Your task to perform on an android device: Is it going to rain today? Image 0: 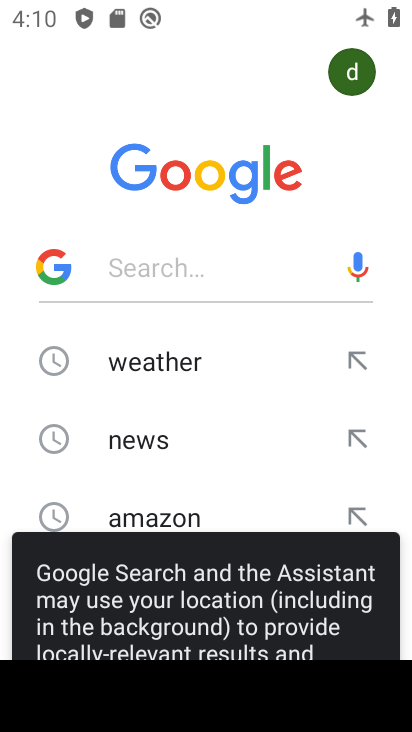
Step 0: drag from (275, 552) to (314, 128)
Your task to perform on an android device: Is it going to rain today? Image 1: 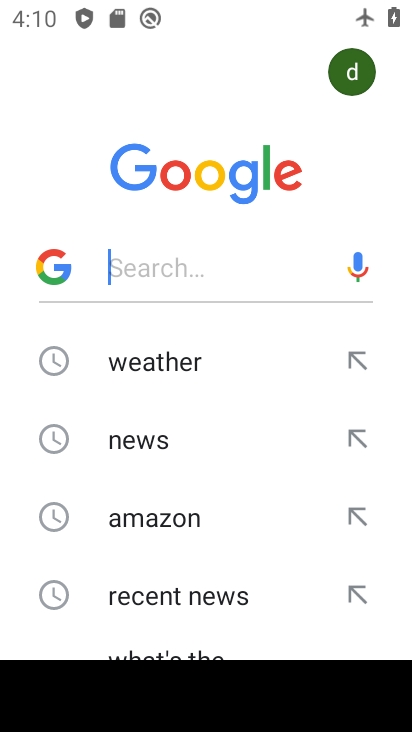
Step 1: press home button
Your task to perform on an android device: Is it going to rain today? Image 2: 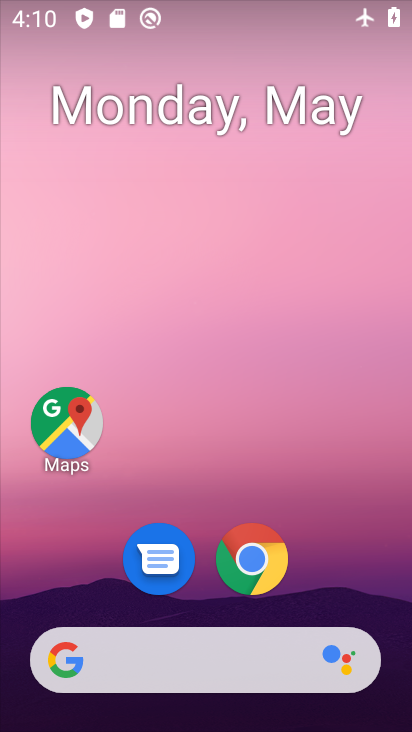
Step 2: drag from (261, 568) to (262, 0)
Your task to perform on an android device: Is it going to rain today? Image 3: 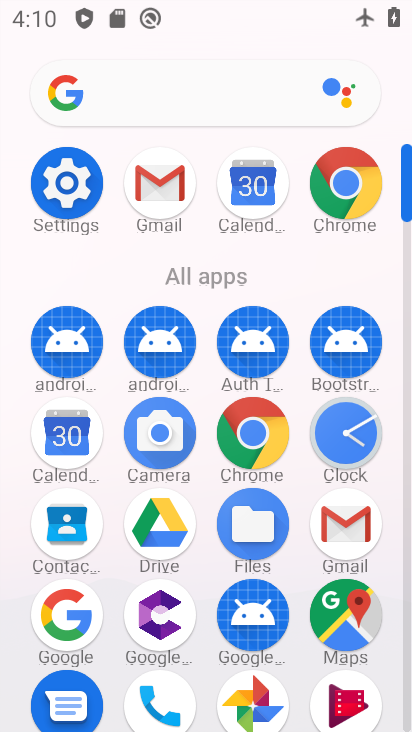
Step 3: press home button
Your task to perform on an android device: Is it going to rain today? Image 4: 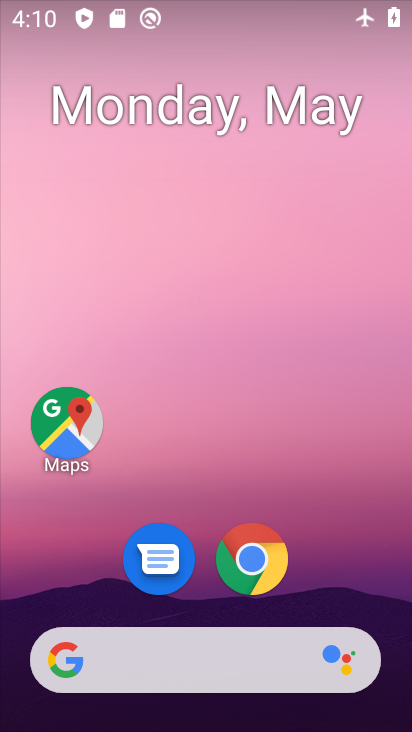
Step 4: drag from (17, 247) to (376, 232)
Your task to perform on an android device: Is it going to rain today? Image 5: 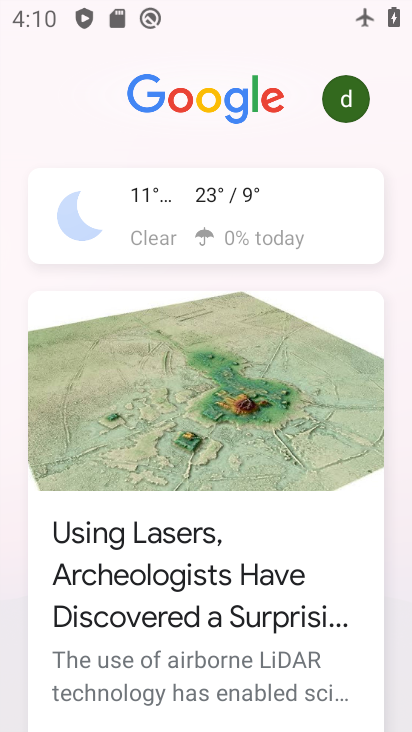
Step 5: click (270, 229)
Your task to perform on an android device: Is it going to rain today? Image 6: 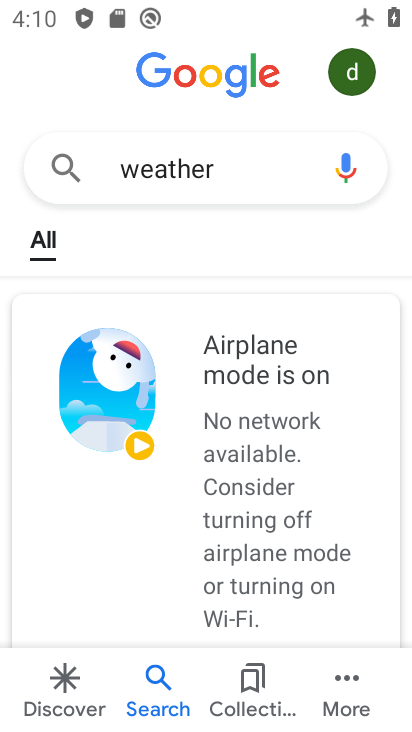
Step 6: task complete